Your task to perform on an android device: Go to Android settings Image 0: 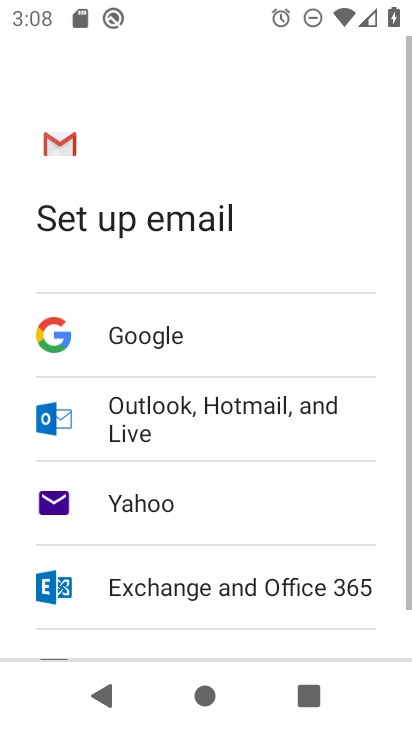
Step 0: press home button
Your task to perform on an android device: Go to Android settings Image 1: 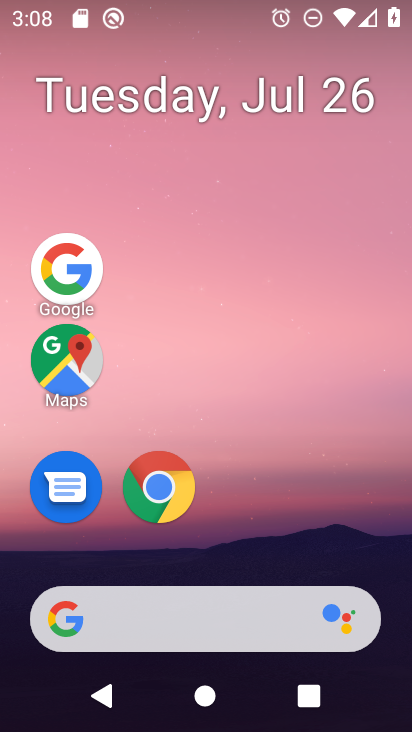
Step 1: drag from (270, 563) to (304, 123)
Your task to perform on an android device: Go to Android settings Image 2: 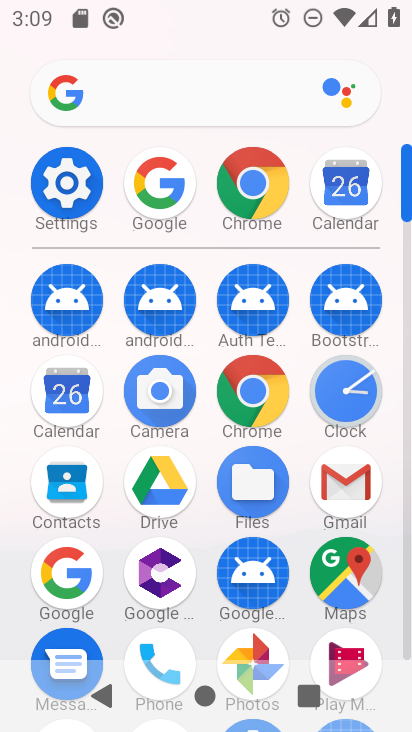
Step 2: click (82, 180)
Your task to perform on an android device: Go to Android settings Image 3: 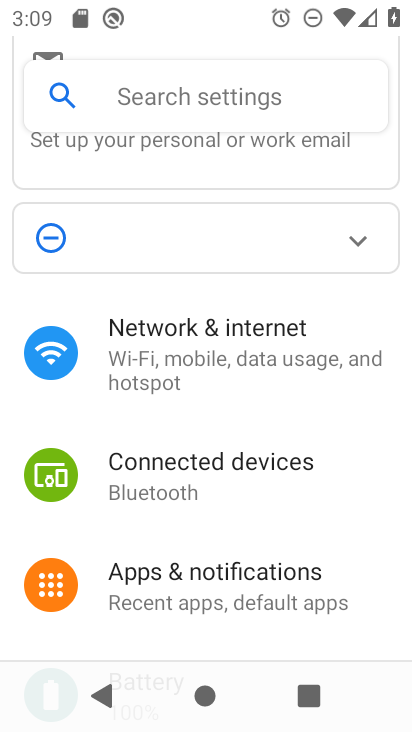
Step 3: drag from (155, 500) to (289, 54)
Your task to perform on an android device: Go to Android settings Image 4: 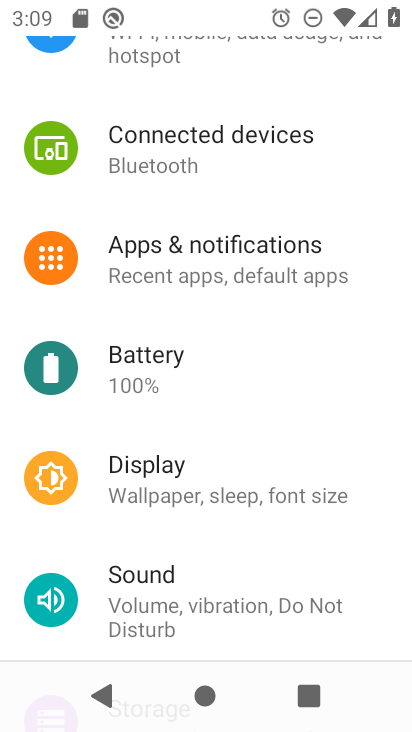
Step 4: drag from (151, 440) to (230, 77)
Your task to perform on an android device: Go to Android settings Image 5: 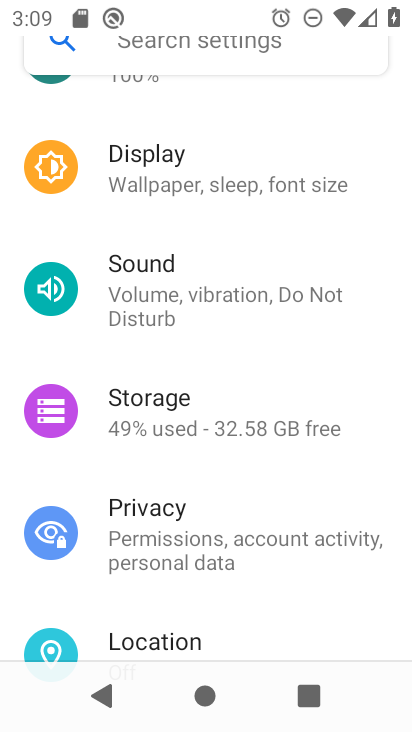
Step 5: drag from (152, 497) to (222, 232)
Your task to perform on an android device: Go to Android settings Image 6: 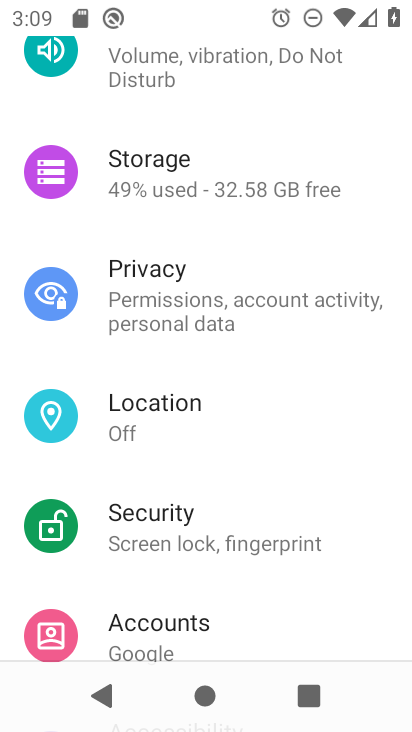
Step 6: drag from (195, 551) to (219, 1)
Your task to perform on an android device: Go to Android settings Image 7: 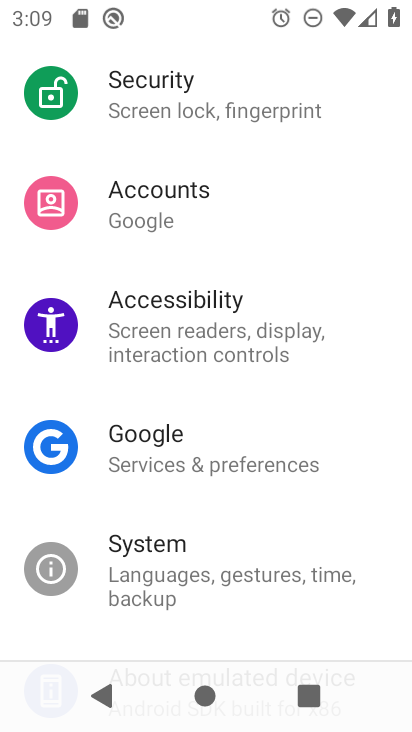
Step 7: drag from (192, 506) to (216, 89)
Your task to perform on an android device: Go to Android settings Image 8: 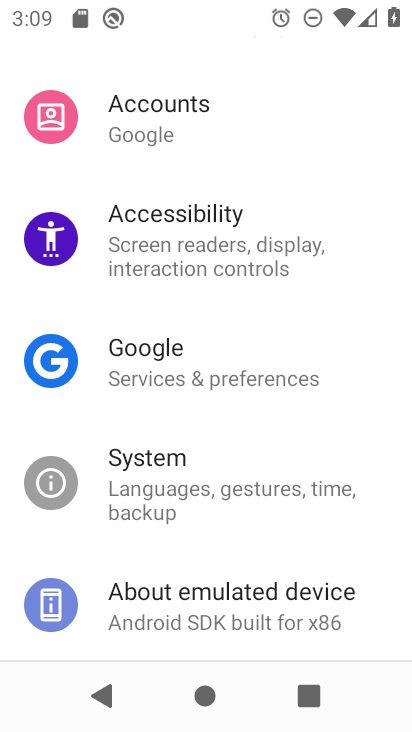
Step 8: drag from (192, 562) to (204, 204)
Your task to perform on an android device: Go to Android settings Image 9: 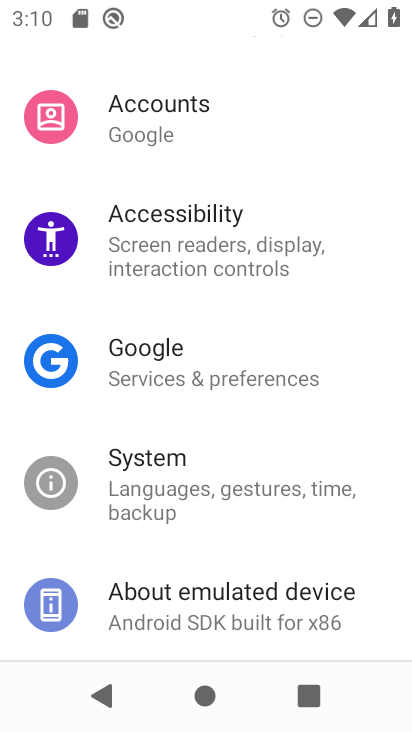
Step 9: click (213, 592)
Your task to perform on an android device: Go to Android settings Image 10: 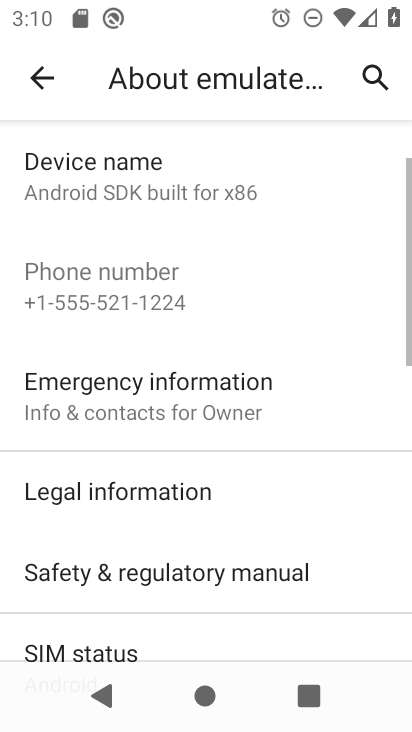
Step 10: task complete